Your task to perform on an android device: Open calendar and show me the fourth week of next month Image 0: 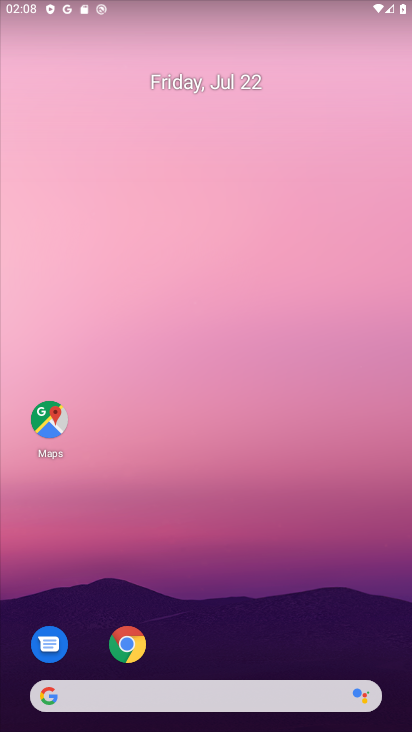
Step 0: drag from (286, 723) to (279, 1)
Your task to perform on an android device: Open calendar and show me the fourth week of next month Image 1: 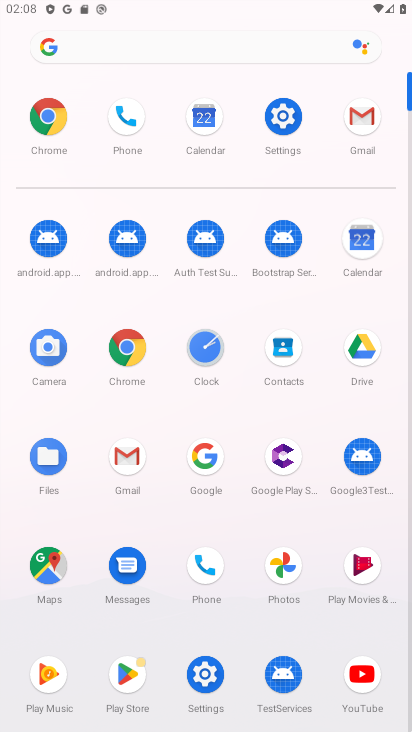
Step 1: click (349, 248)
Your task to perform on an android device: Open calendar and show me the fourth week of next month Image 2: 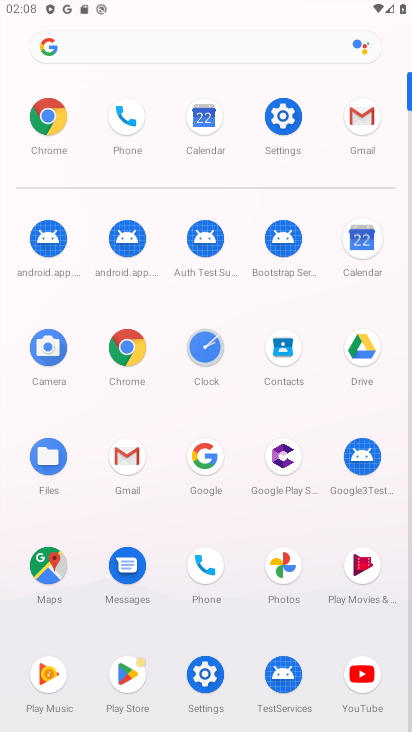
Step 2: click (349, 248)
Your task to perform on an android device: Open calendar and show me the fourth week of next month Image 3: 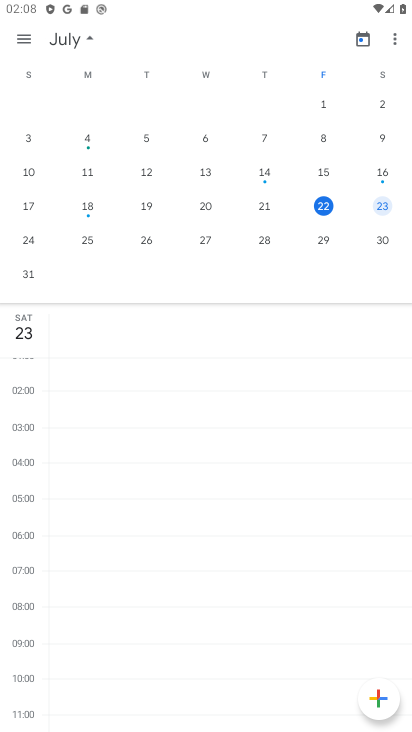
Step 3: drag from (350, 152) to (116, 207)
Your task to perform on an android device: Open calendar and show me the fourth week of next month Image 4: 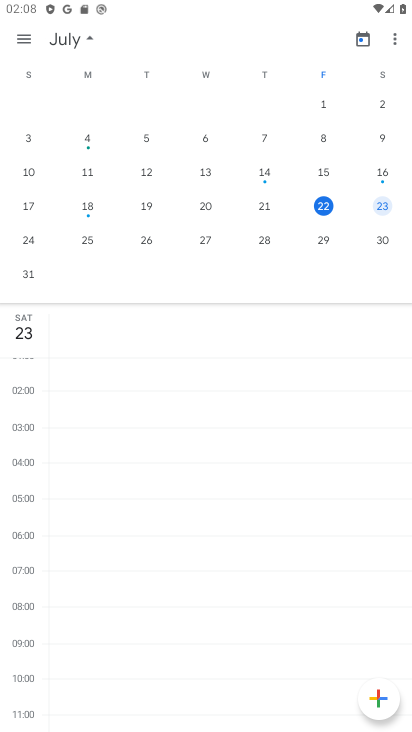
Step 4: drag from (367, 137) to (20, 333)
Your task to perform on an android device: Open calendar and show me the fourth week of next month Image 5: 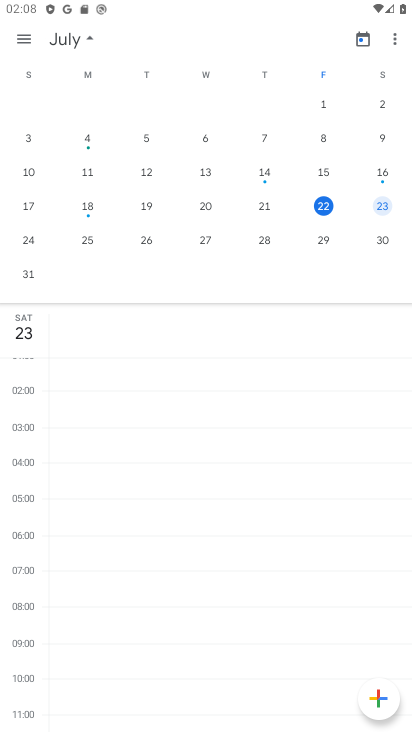
Step 5: drag from (345, 142) to (22, 460)
Your task to perform on an android device: Open calendar and show me the fourth week of next month Image 6: 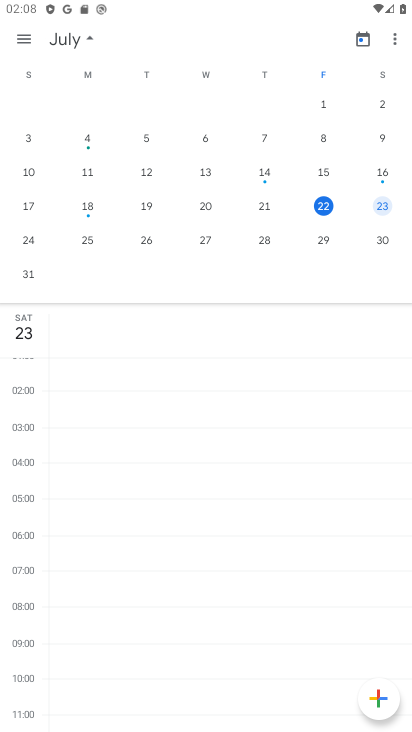
Step 6: drag from (367, 120) to (17, 551)
Your task to perform on an android device: Open calendar and show me the fourth week of next month Image 7: 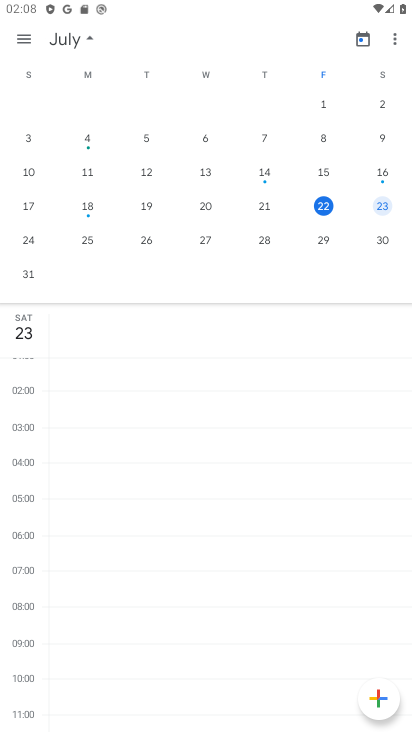
Step 7: drag from (382, 121) to (235, 483)
Your task to perform on an android device: Open calendar and show me the fourth week of next month Image 8: 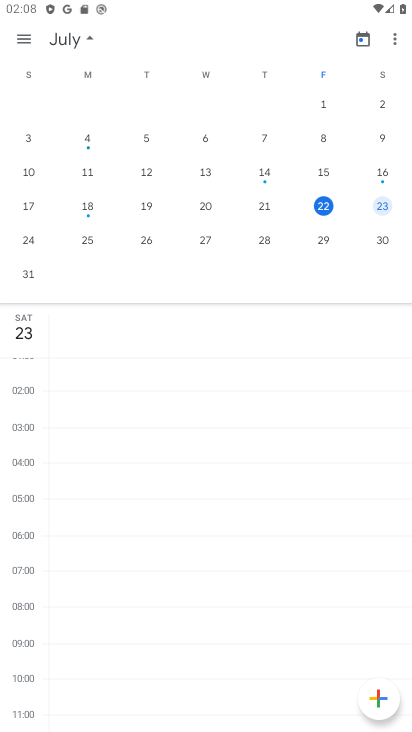
Step 8: drag from (385, 136) to (58, 262)
Your task to perform on an android device: Open calendar and show me the fourth week of next month Image 9: 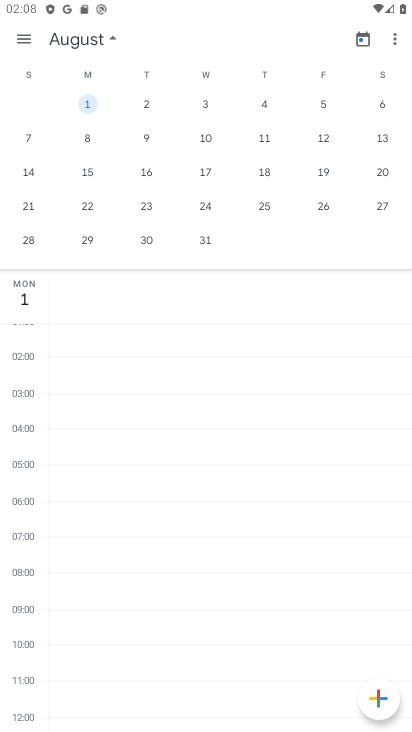
Step 9: click (30, 206)
Your task to perform on an android device: Open calendar and show me the fourth week of next month Image 10: 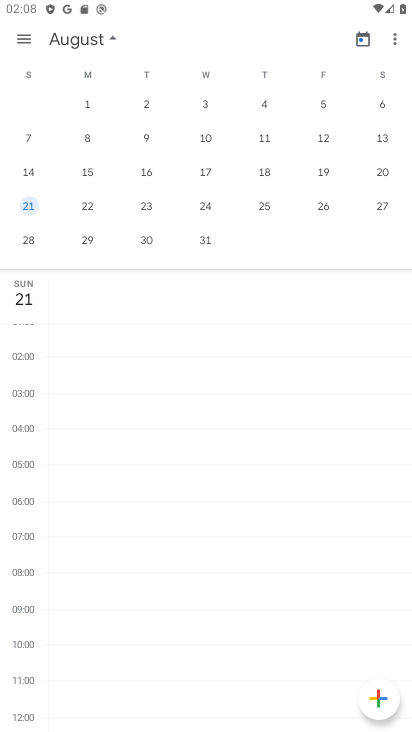
Step 10: task complete